Your task to perform on an android device: open app "Facebook Messenger" (install if not already installed) Image 0: 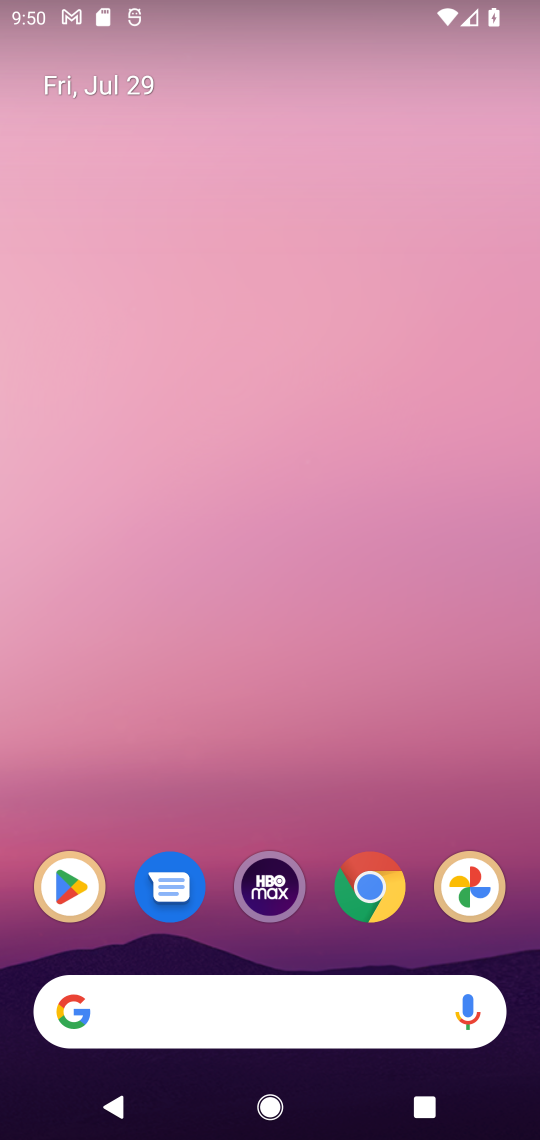
Step 0: click (62, 882)
Your task to perform on an android device: open app "Facebook Messenger" (install if not already installed) Image 1: 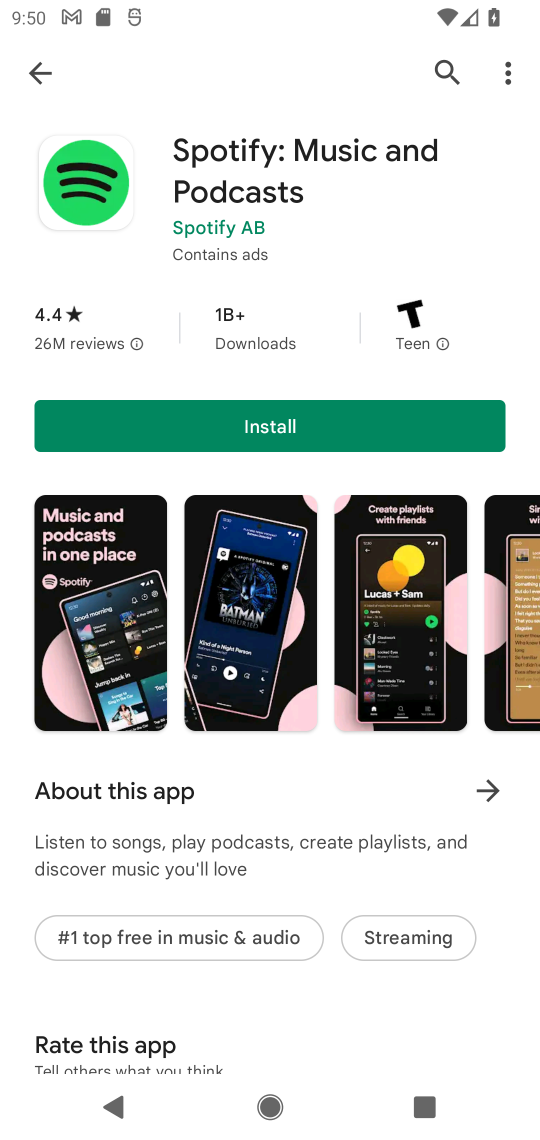
Step 1: click (446, 71)
Your task to perform on an android device: open app "Facebook Messenger" (install if not already installed) Image 2: 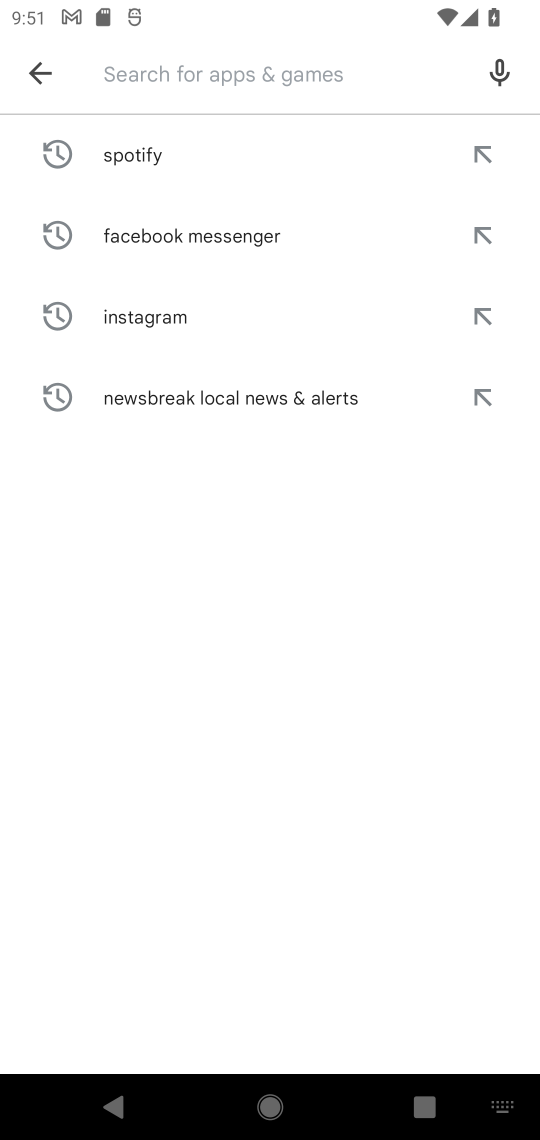
Step 2: type "Facebook Messenger"
Your task to perform on an android device: open app "Facebook Messenger" (install if not already installed) Image 3: 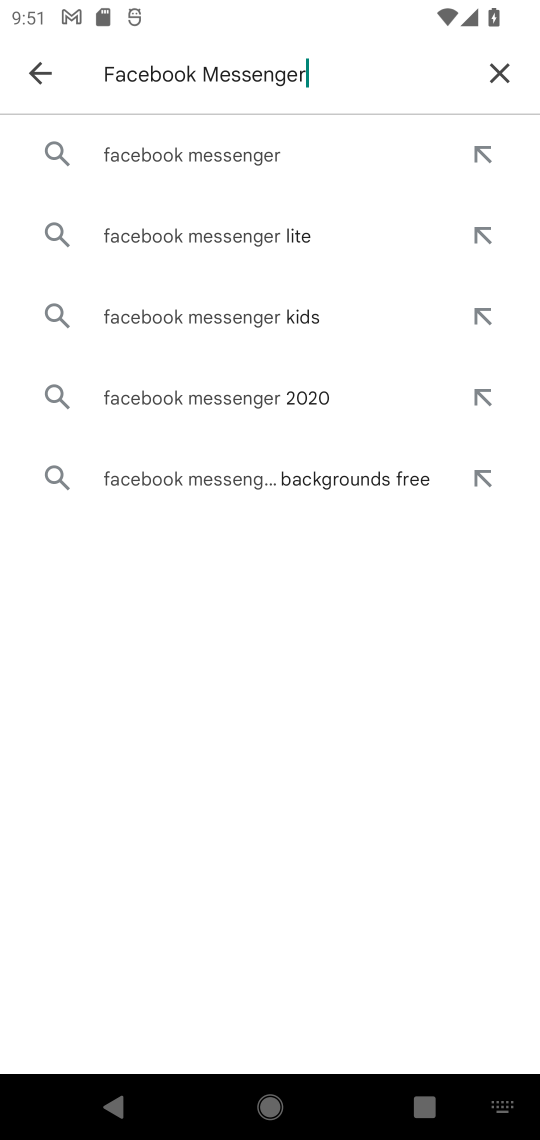
Step 3: click (127, 145)
Your task to perform on an android device: open app "Facebook Messenger" (install if not already installed) Image 4: 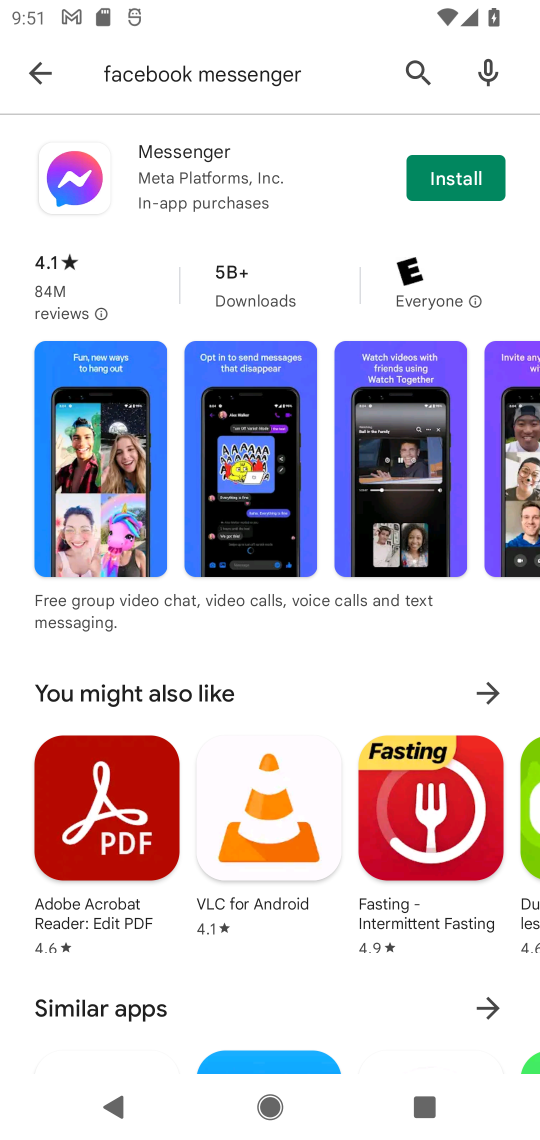
Step 4: click (154, 149)
Your task to perform on an android device: open app "Facebook Messenger" (install if not already installed) Image 5: 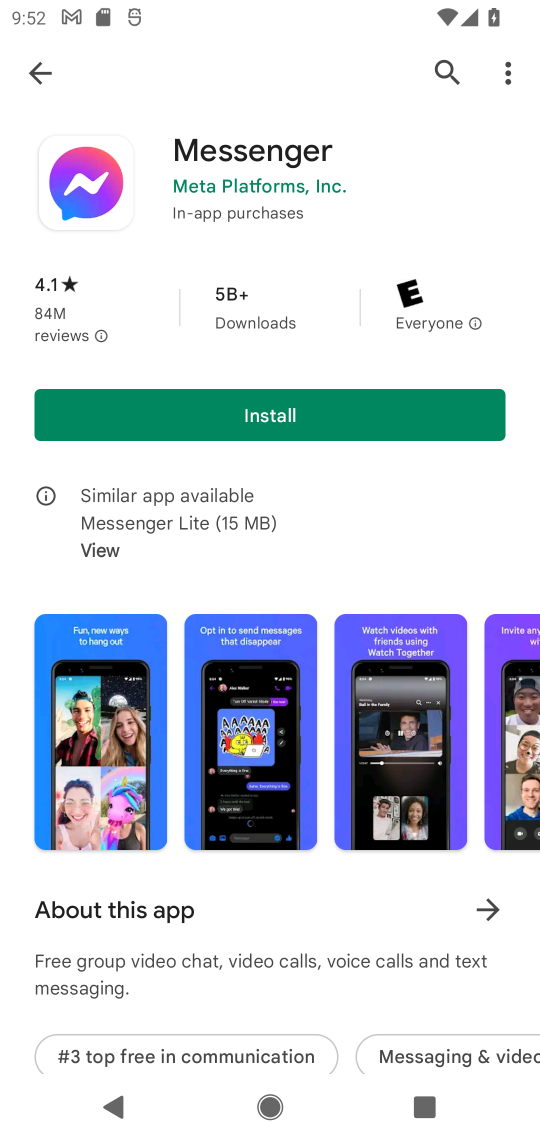
Step 5: click (285, 393)
Your task to perform on an android device: open app "Facebook Messenger" (install if not already installed) Image 6: 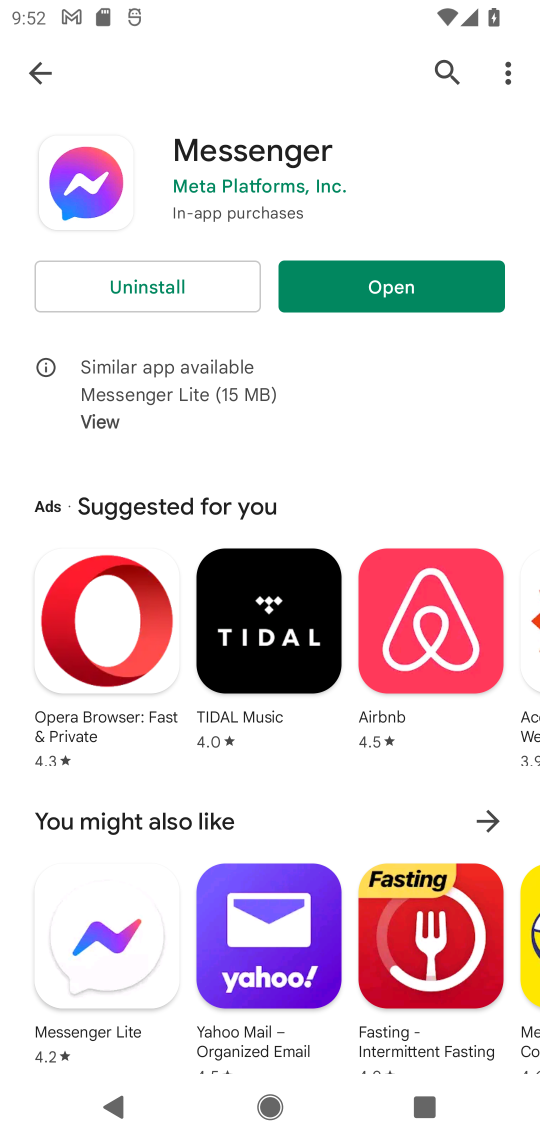
Step 6: click (401, 295)
Your task to perform on an android device: open app "Facebook Messenger" (install if not already installed) Image 7: 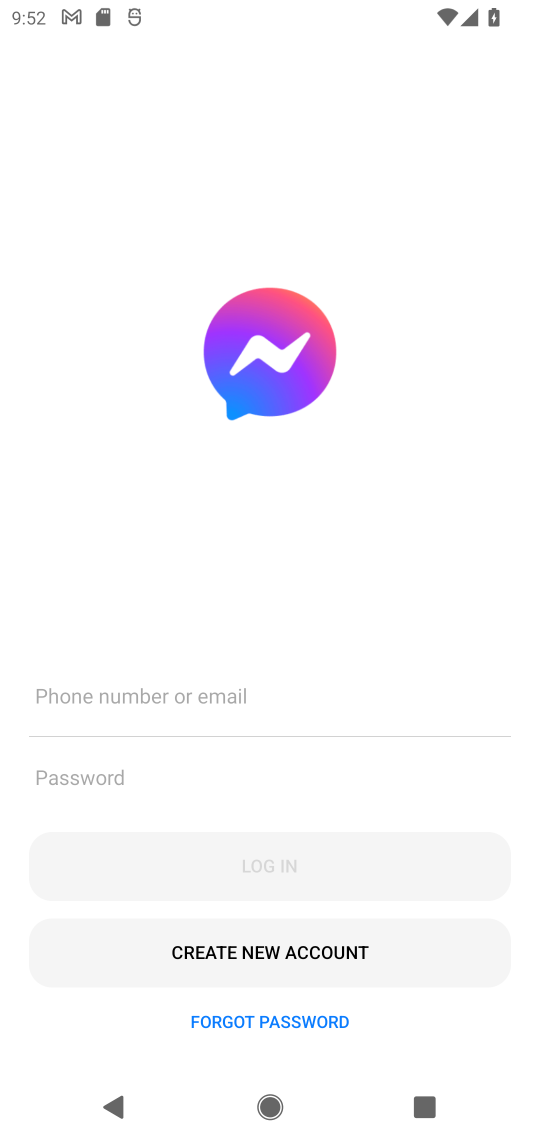
Step 7: task complete